Your task to perform on an android device: Open Youtube and go to the subscriptions tab Image 0: 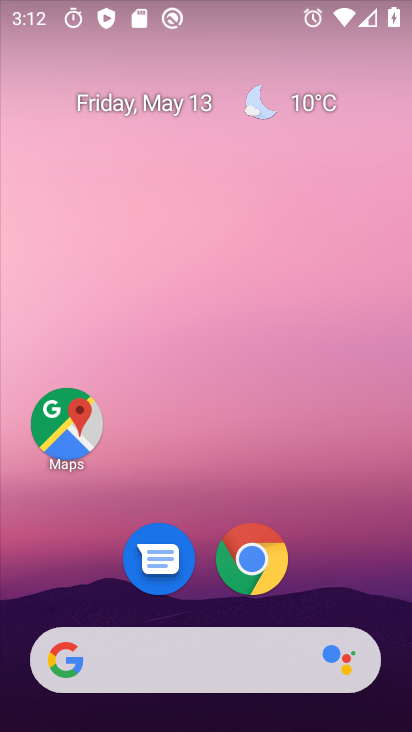
Step 0: drag from (210, 594) to (196, 135)
Your task to perform on an android device: Open Youtube and go to the subscriptions tab Image 1: 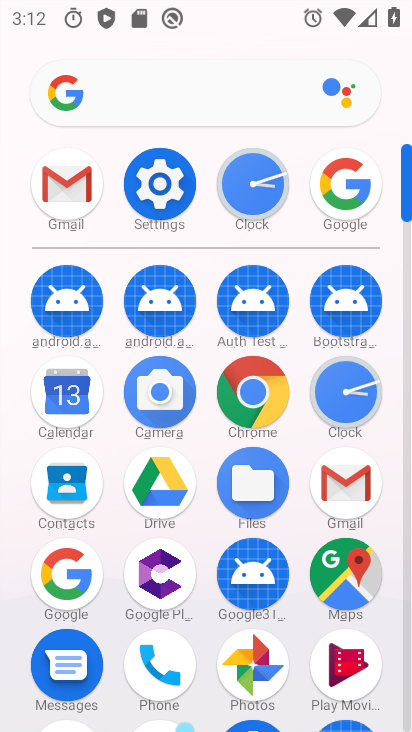
Step 1: drag from (285, 633) to (294, 255)
Your task to perform on an android device: Open Youtube and go to the subscriptions tab Image 2: 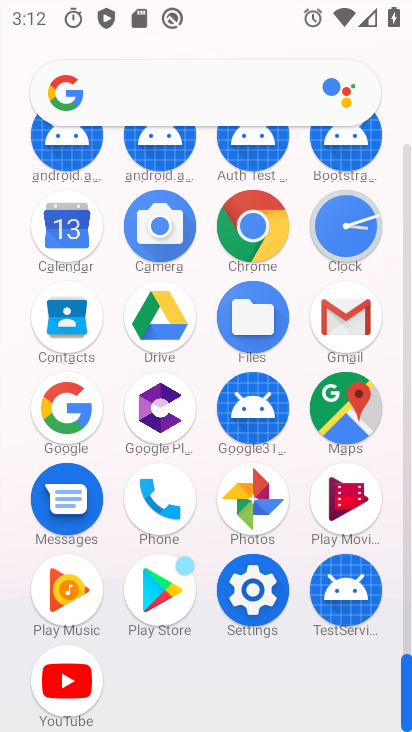
Step 2: click (51, 660)
Your task to perform on an android device: Open Youtube and go to the subscriptions tab Image 3: 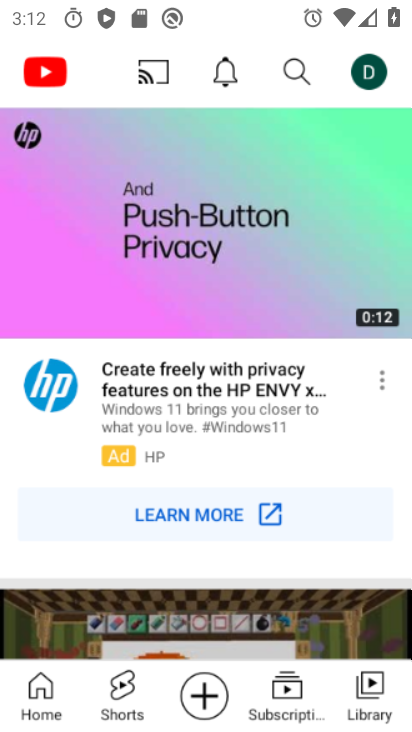
Step 3: click (287, 688)
Your task to perform on an android device: Open Youtube and go to the subscriptions tab Image 4: 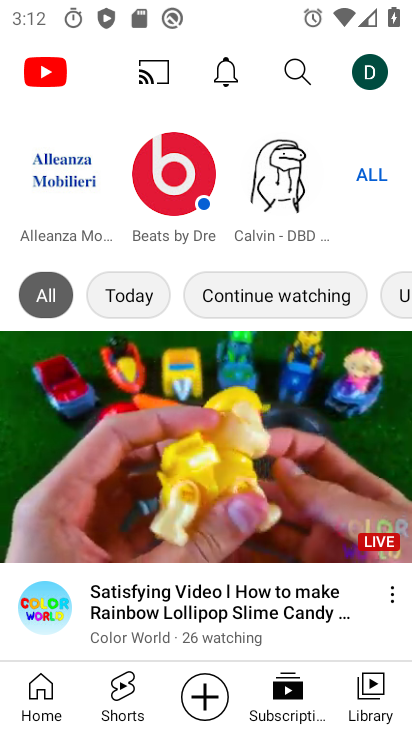
Step 4: task complete